Your task to perform on an android device: Turn on the flashlight Image 0: 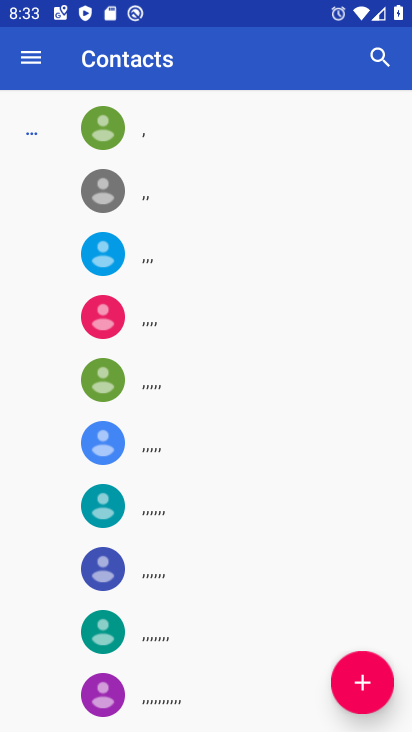
Step 0: press back button
Your task to perform on an android device: Turn on the flashlight Image 1: 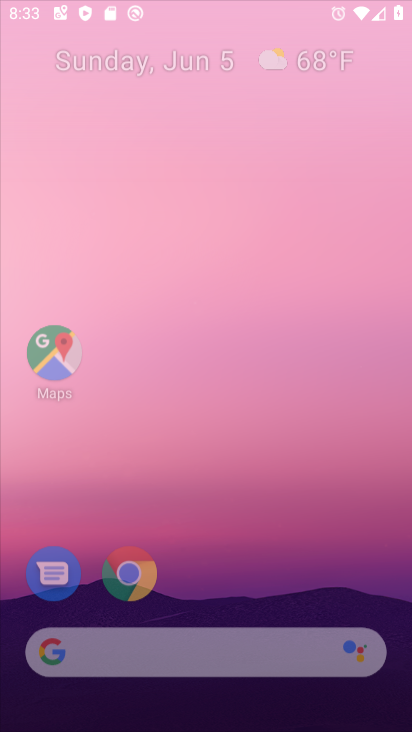
Step 1: press home button
Your task to perform on an android device: Turn on the flashlight Image 2: 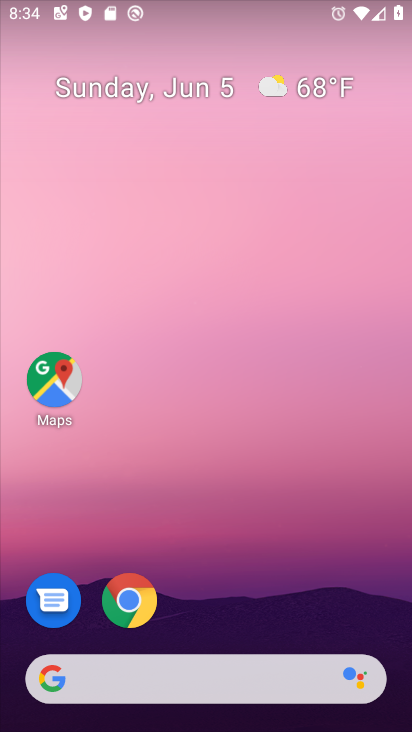
Step 2: click (336, 607)
Your task to perform on an android device: Turn on the flashlight Image 3: 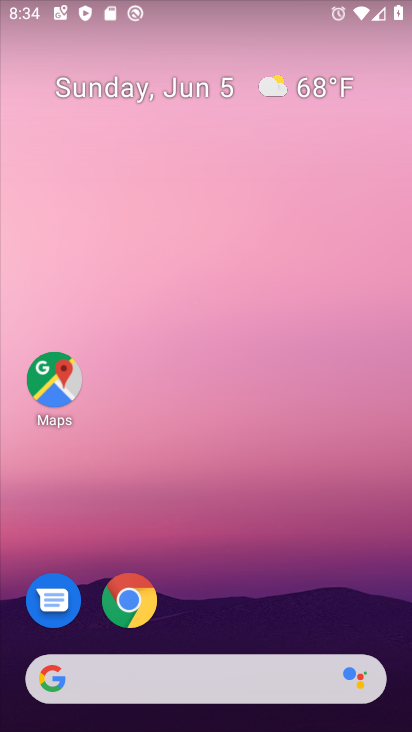
Step 3: drag from (285, 237) to (221, 17)
Your task to perform on an android device: Turn on the flashlight Image 4: 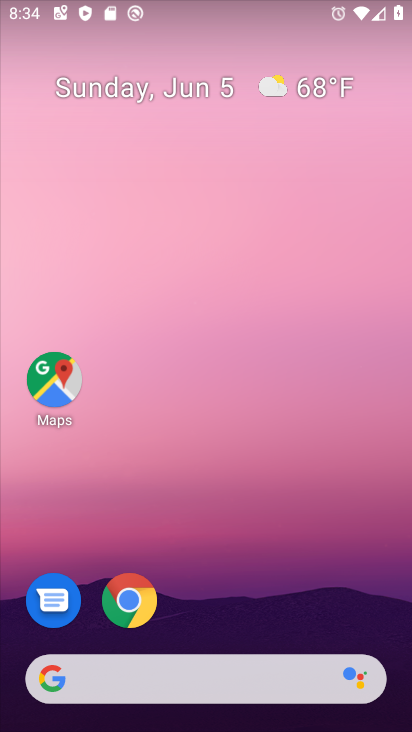
Step 4: drag from (380, 627) to (207, 0)
Your task to perform on an android device: Turn on the flashlight Image 5: 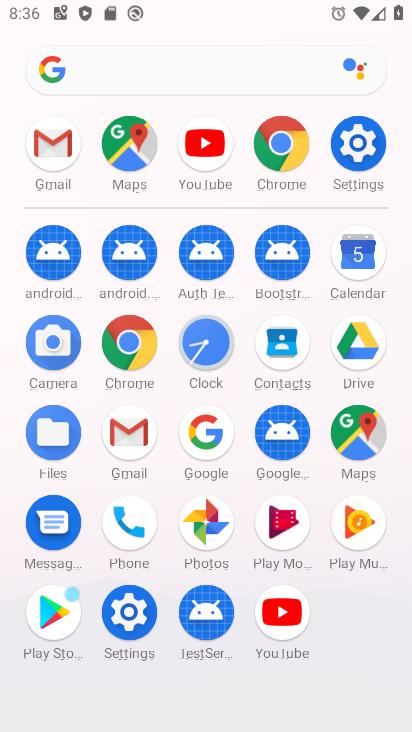
Step 5: click (363, 145)
Your task to perform on an android device: Turn on the flashlight Image 6: 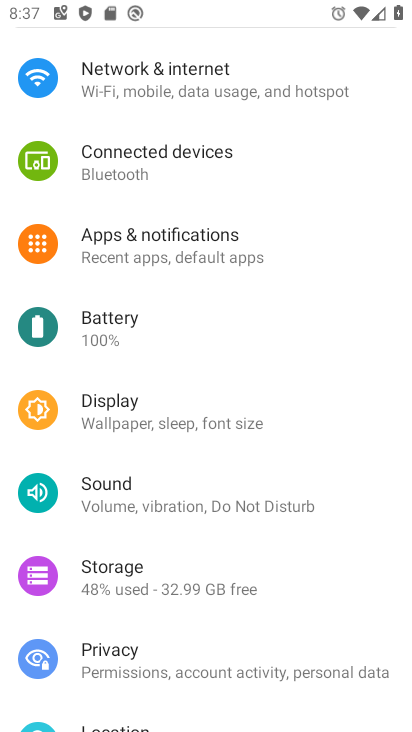
Step 6: task complete